Your task to perform on an android device: turn on location history Image 0: 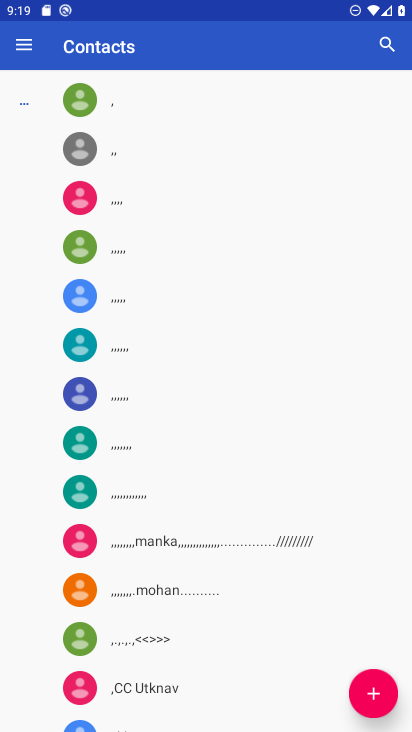
Step 0: press home button
Your task to perform on an android device: turn on location history Image 1: 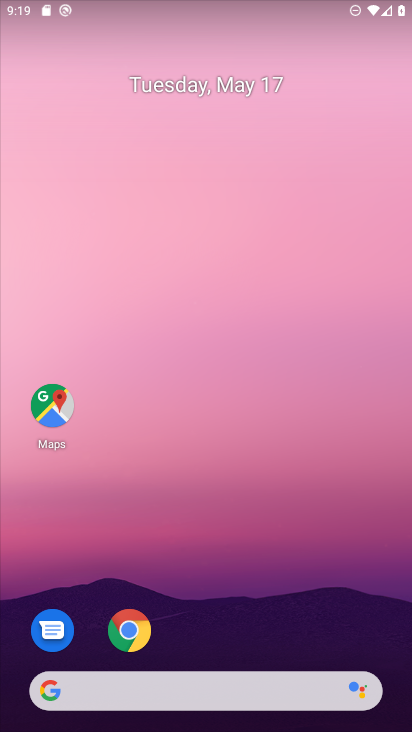
Step 1: drag from (321, 620) to (317, 142)
Your task to perform on an android device: turn on location history Image 2: 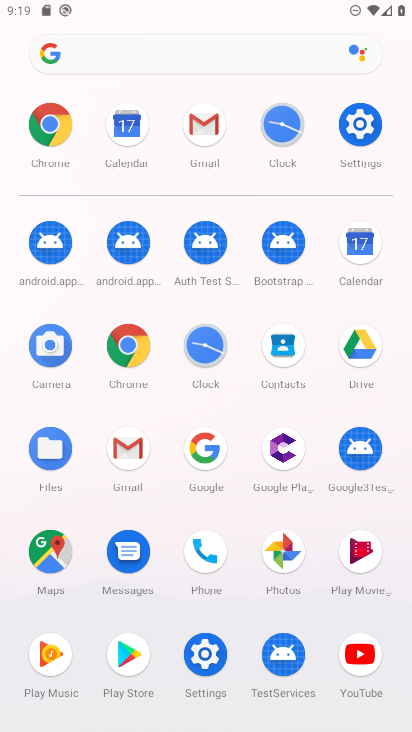
Step 2: click (359, 127)
Your task to perform on an android device: turn on location history Image 3: 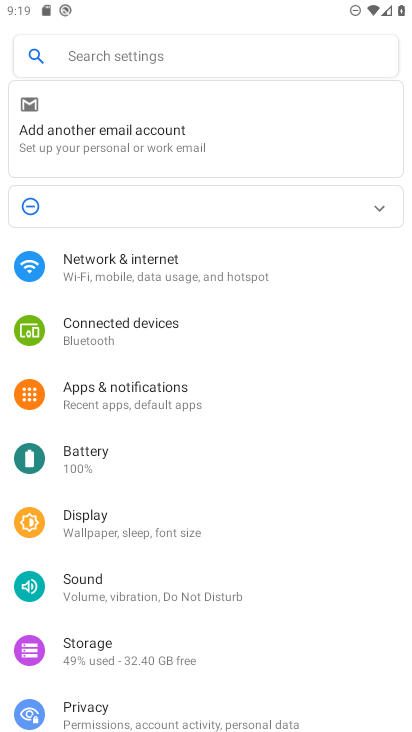
Step 3: drag from (308, 586) to (295, 422)
Your task to perform on an android device: turn on location history Image 4: 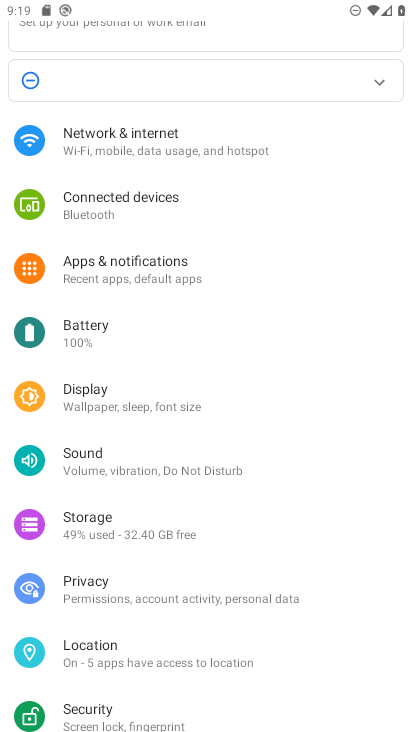
Step 4: drag from (317, 647) to (321, 531)
Your task to perform on an android device: turn on location history Image 5: 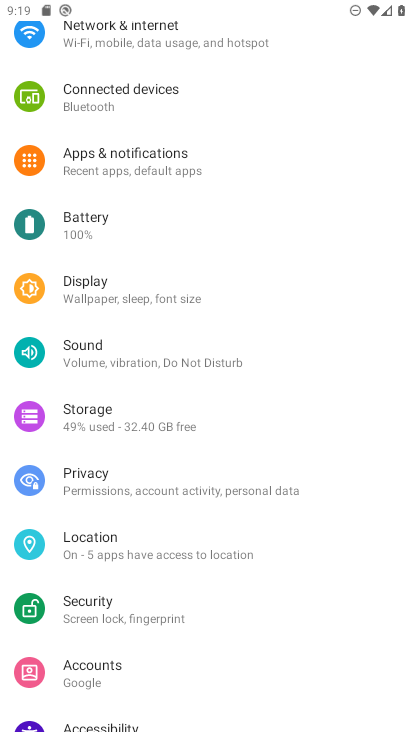
Step 5: drag from (319, 653) to (317, 496)
Your task to perform on an android device: turn on location history Image 6: 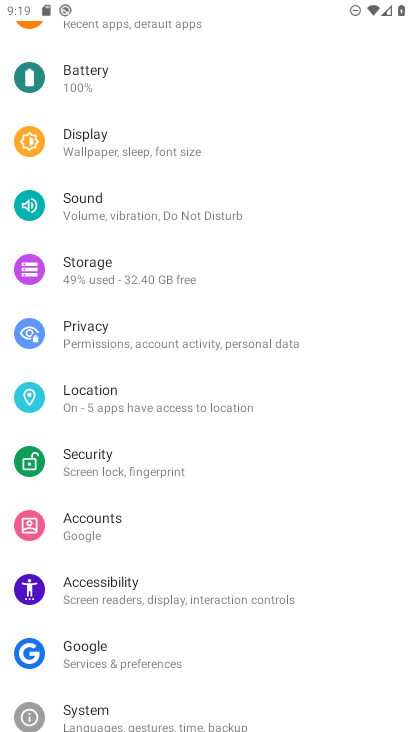
Step 6: drag from (309, 673) to (305, 520)
Your task to perform on an android device: turn on location history Image 7: 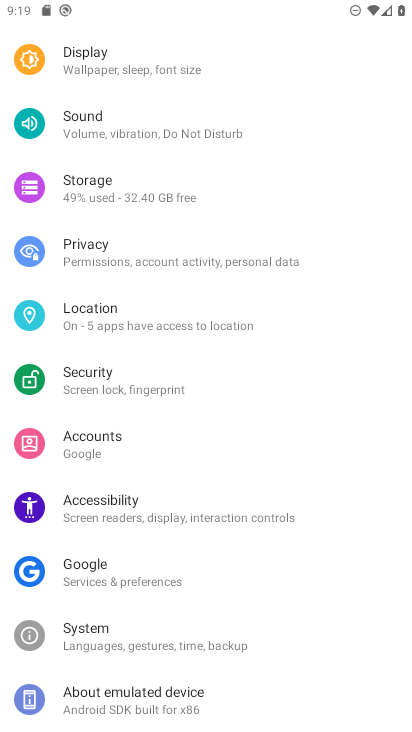
Step 7: drag from (310, 403) to (302, 529)
Your task to perform on an android device: turn on location history Image 8: 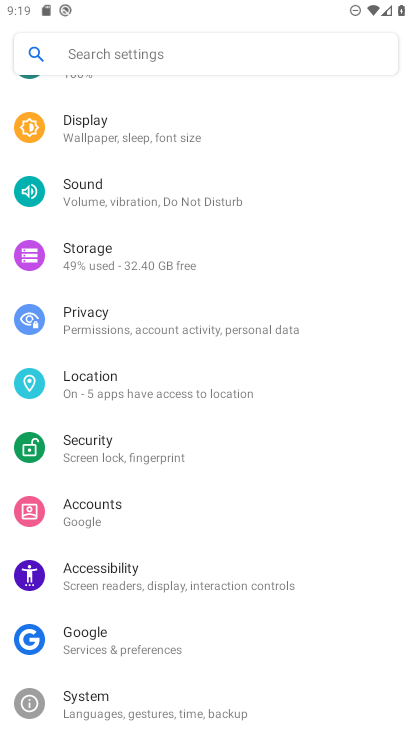
Step 8: drag from (324, 430) to (310, 544)
Your task to perform on an android device: turn on location history Image 9: 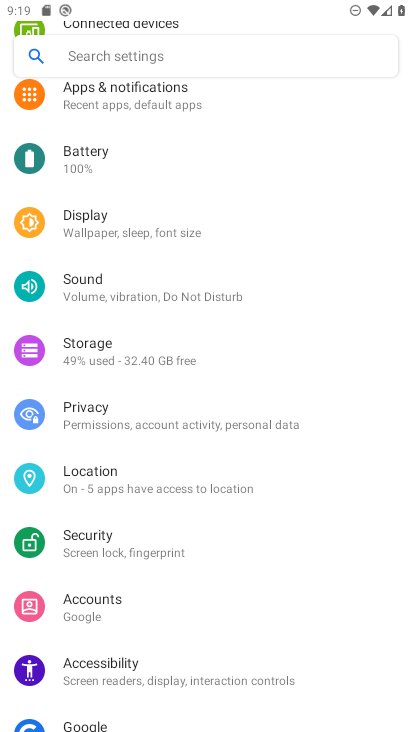
Step 9: click (218, 467)
Your task to perform on an android device: turn on location history Image 10: 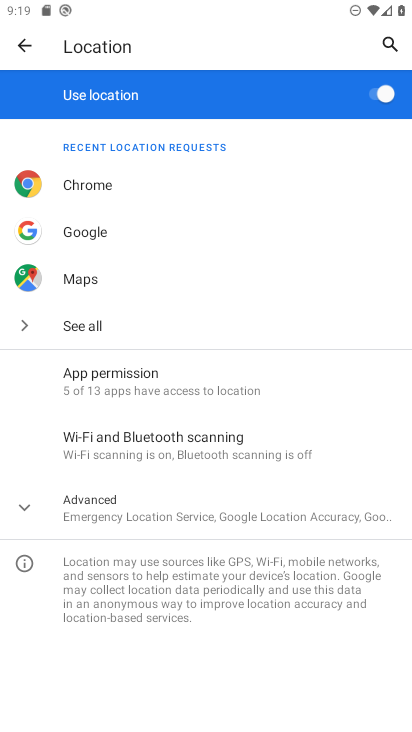
Step 10: click (300, 522)
Your task to perform on an android device: turn on location history Image 11: 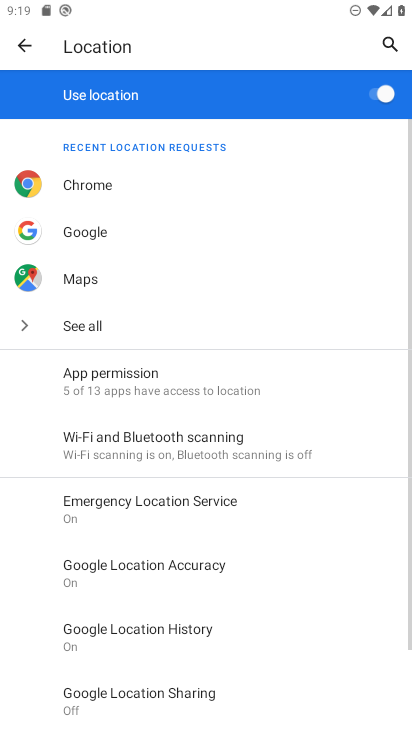
Step 11: drag from (309, 589) to (313, 512)
Your task to perform on an android device: turn on location history Image 12: 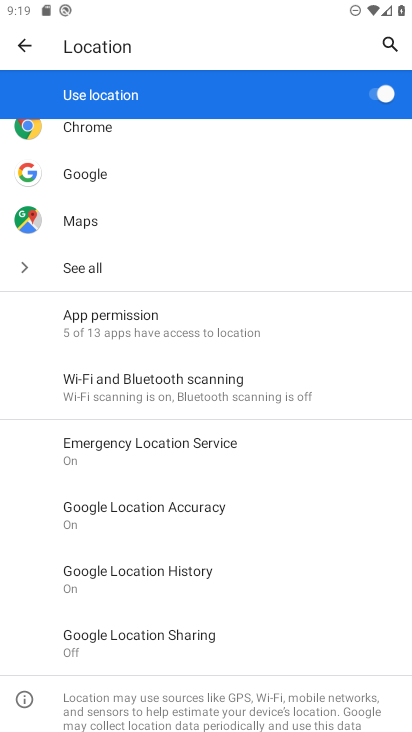
Step 12: click (196, 574)
Your task to perform on an android device: turn on location history Image 13: 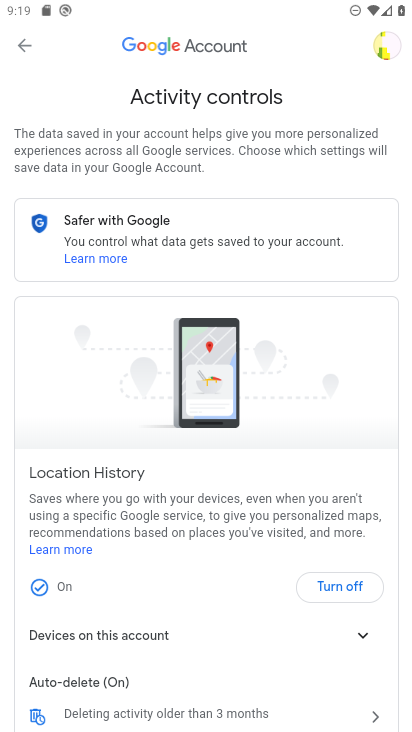
Step 13: task complete